Your task to perform on an android device: turn off notifications settings in the gmail app Image 0: 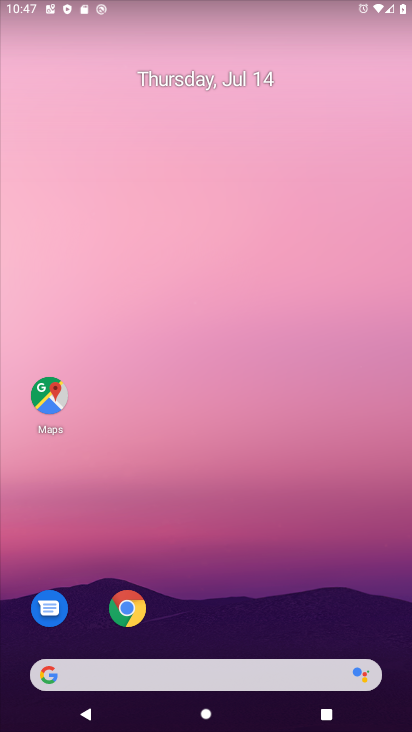
Step 0: drag from (228, 725) to (199, 264)
Your task to perform on an android device: turn off notifications settings in the gmail app Image 1: 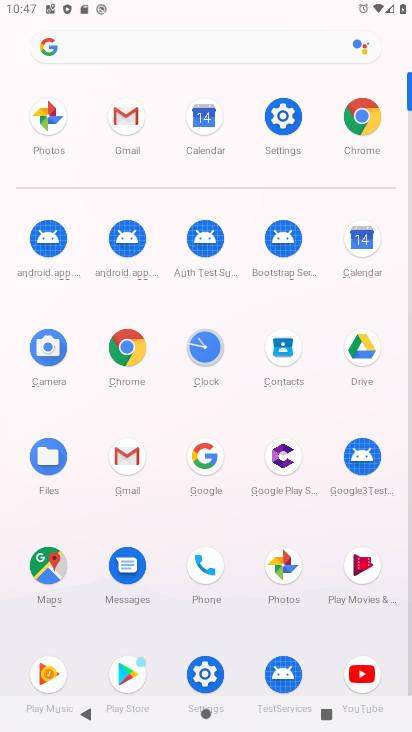
Step 1: click (129, 461)
Your task to perform on an android device: turn off notifications settings in the gmail app Image 2: 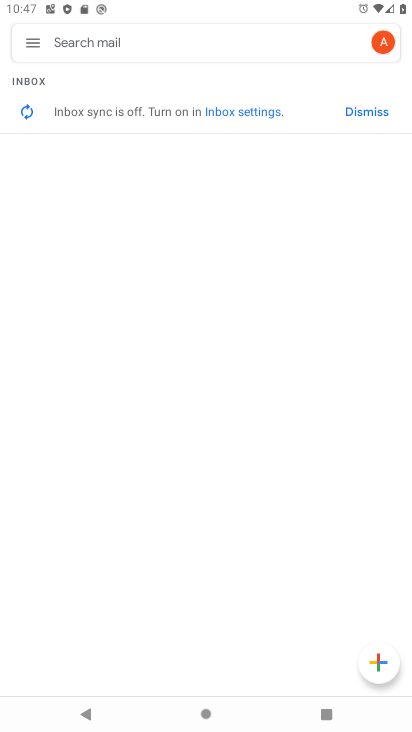
Step 2: click (34, 44)
Your task to perform on an android device: turn off notifications settings in the gmail app Image 3: 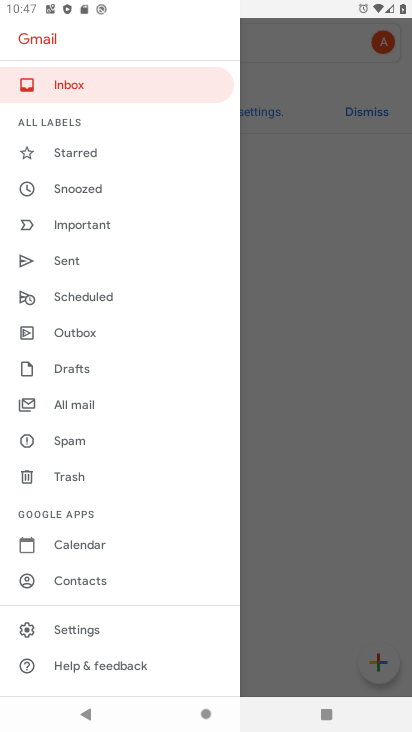
Step 3: click (82, 629)
Your task to perform on an android device: turn off notifications settings in the gmail app Image 4: 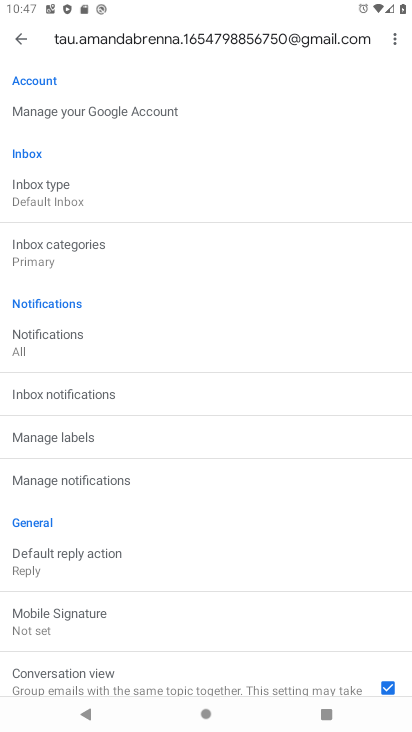
Step 4: click (62, 333)
Your task to perform on an android device: turn off notifications settings in the gmail app Image 5: 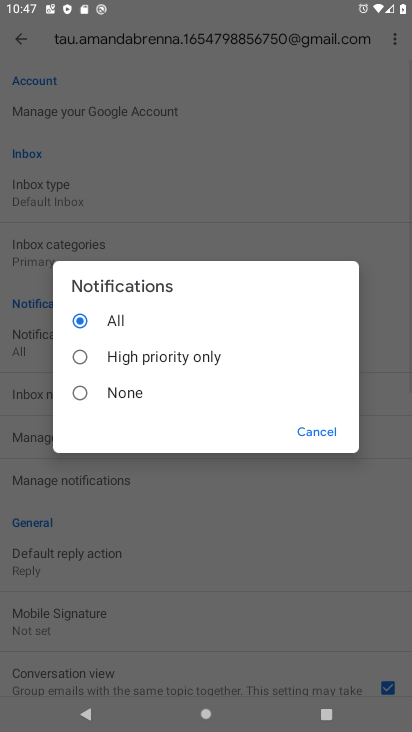
Step 5: click (81, 389)
Your task to perform on an android device: turn off notifications settings in the gmail app Image 6: 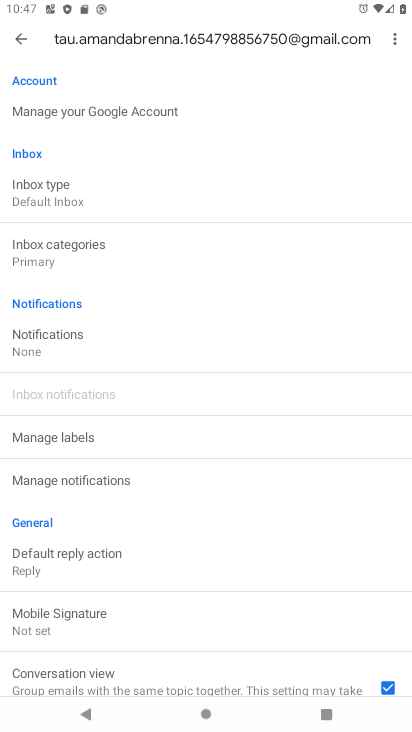
Step 6: task complete